Your task to perform on an android device: Search for sushi restaurants on Maps Image 0: 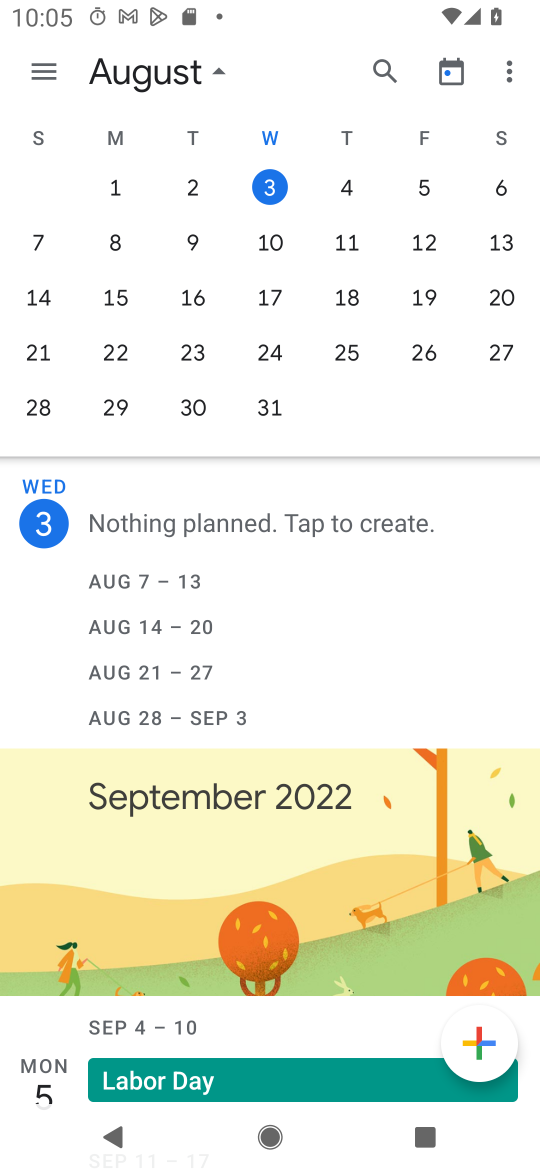
Step 0: press home button
Your task to perform on an android device: Search for sushi restaurants on Maps Image 1: 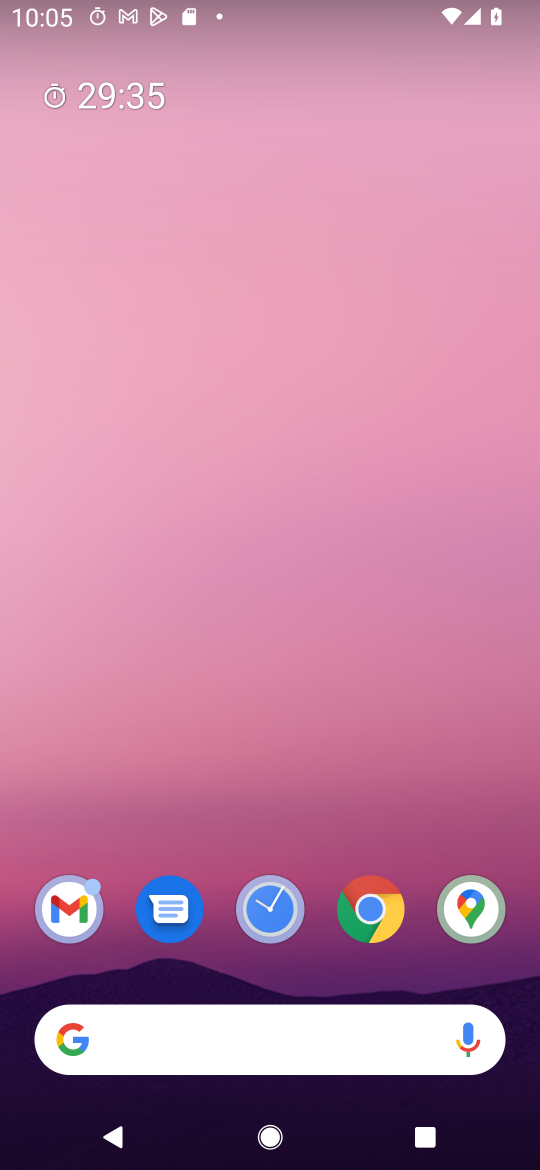
Step 1: drag from (413, 860) to (440, 275)
Your task to perform on an android device: Search for sushi restaurants on Maps Image 2: 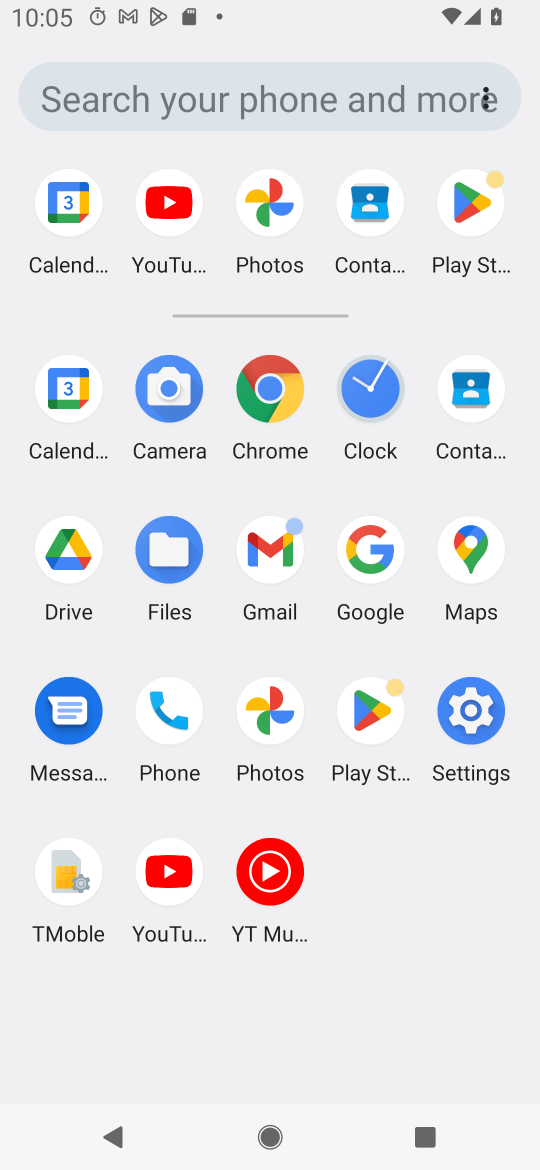
Step 2: click (479, 559)
Your task to perform on an android device: Search for sushi restaurants on Maps Image 3: 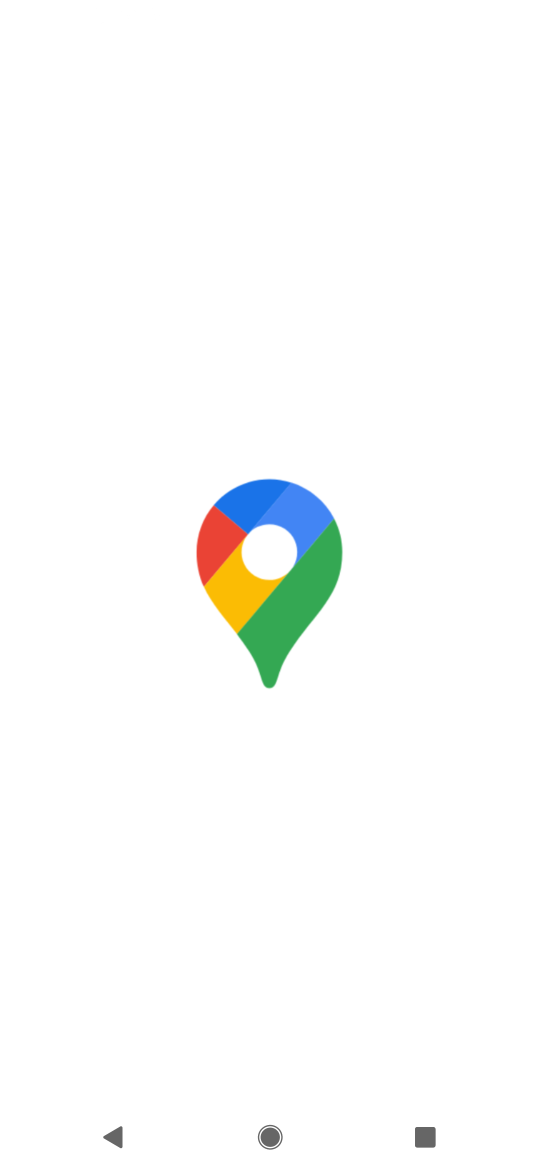
Step 3: task complete